Your task to perform on an android device: Open privacy settings Image 0: 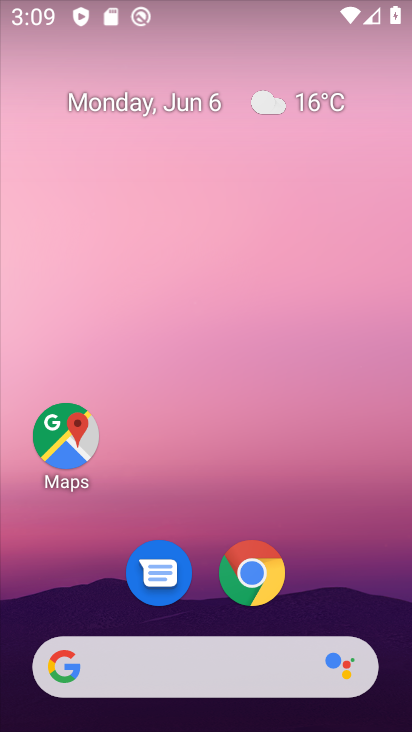
Step 0: click (262, 573)
Your task to perform on an android device: Open privacy settings Image 1: 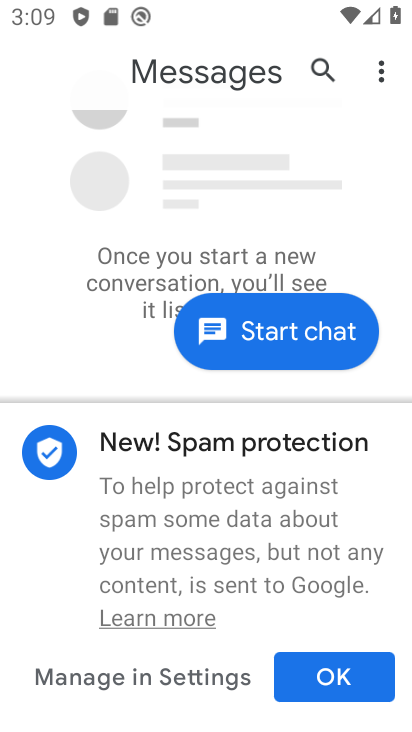
Step 1: press home button
Your task to perform on an android device: Open privacy settings Image 2: 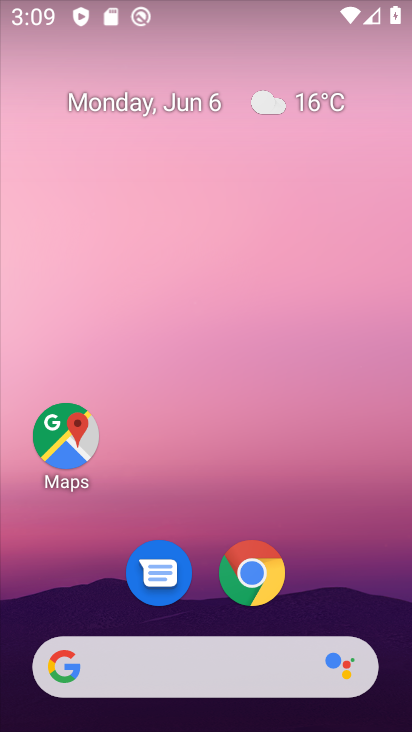
Step 2: drag from (192, 598) to (182, 218)
Your task to perform on an android device: Open privacy settings Image 3: 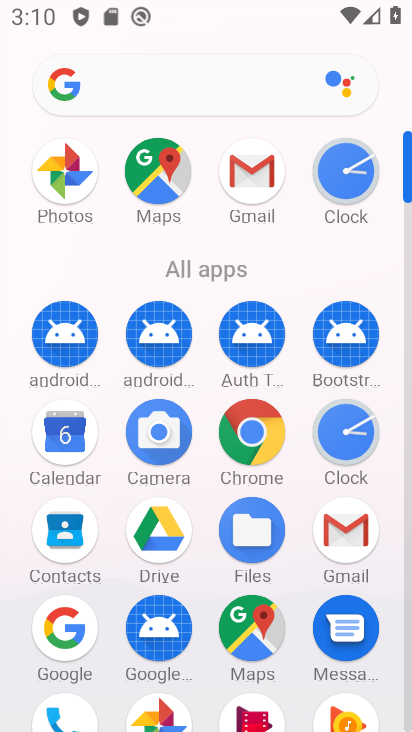
Step 3: drag from (117, 680) to (113, 363)
Your task to perform on an android device: Open privacy settings Image 4: 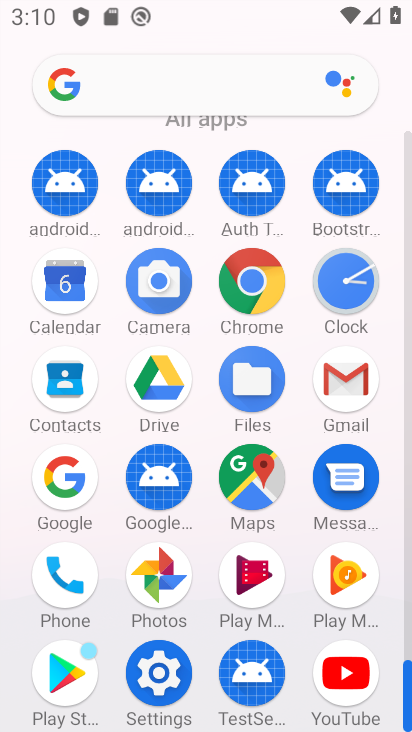
Step 4: click (139, 681)
Your task to perform on an android device: Open privacy settings Image 5: 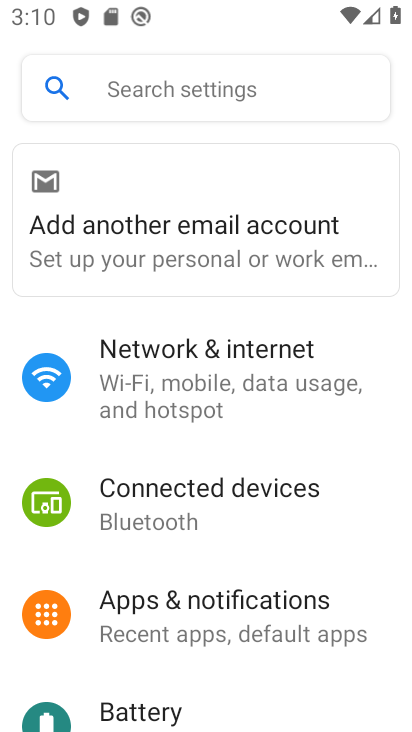
Step 5: drag from (158, 697) to (156, 367)
Your task to perform on an android device: Open privacy settings Image 6: 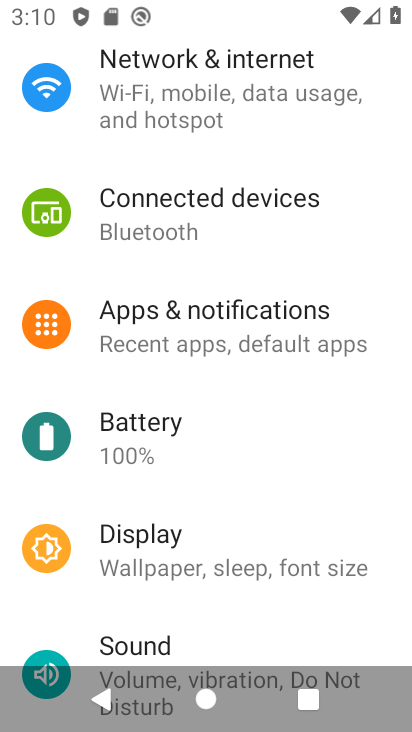
Step 6: drag from (141, 655) to (141, 420)
Your task to perform on an android device: Open privacy settings Image 7: 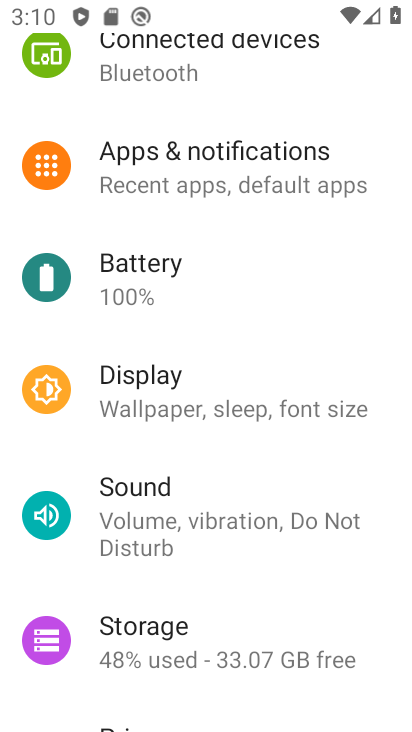
Step 7: drag from (155, 648) to (172, 366)
Your task to perform on an android device: Open privacy settings Image 8: 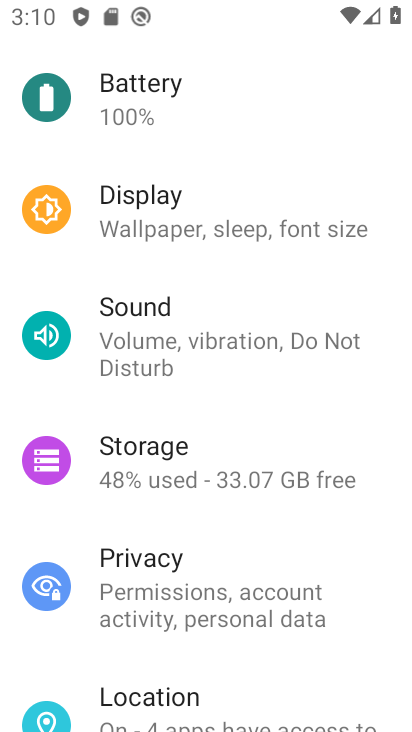
Step 8: click (168, 607)
Your task to perform on an android device: Open privacy settings Image 9: 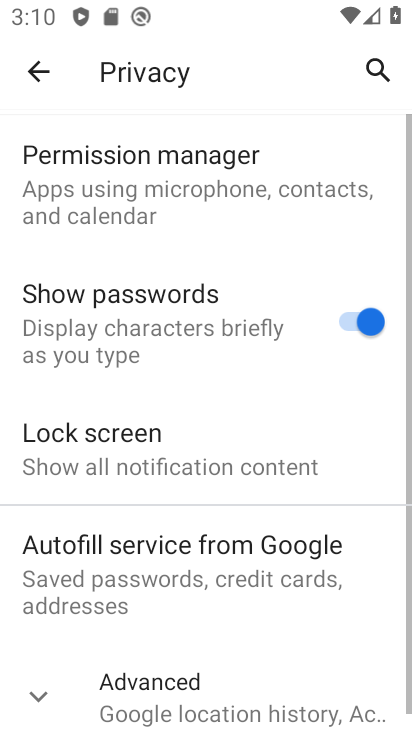
Step 9: click (158, 627)
Your task to perform on an android device: Open privacy settings Image 10: 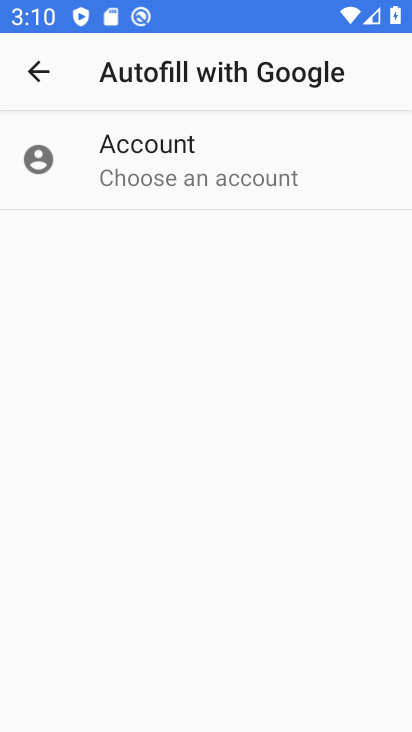
Step 10: task complete